Your task to perform on an android device: Open wifi settings Image 0: 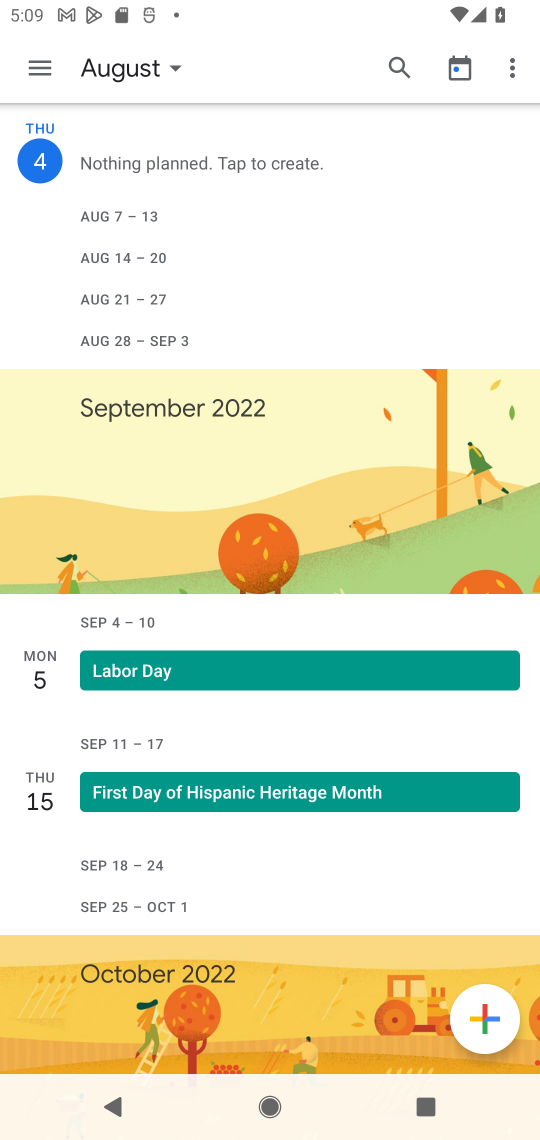
Step 0: press home button
Your task to perform on an android device: Open wifi settings Image 1: 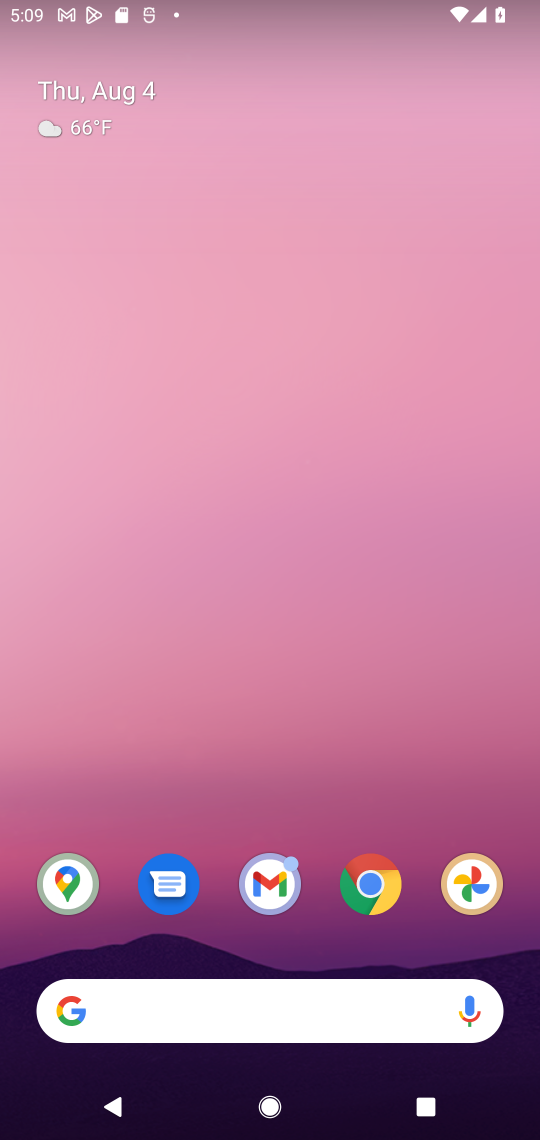
Step 1: drag from (229, 947) to (241, 212)
Your task to perform on an android device: Open wifi settings Image 2: 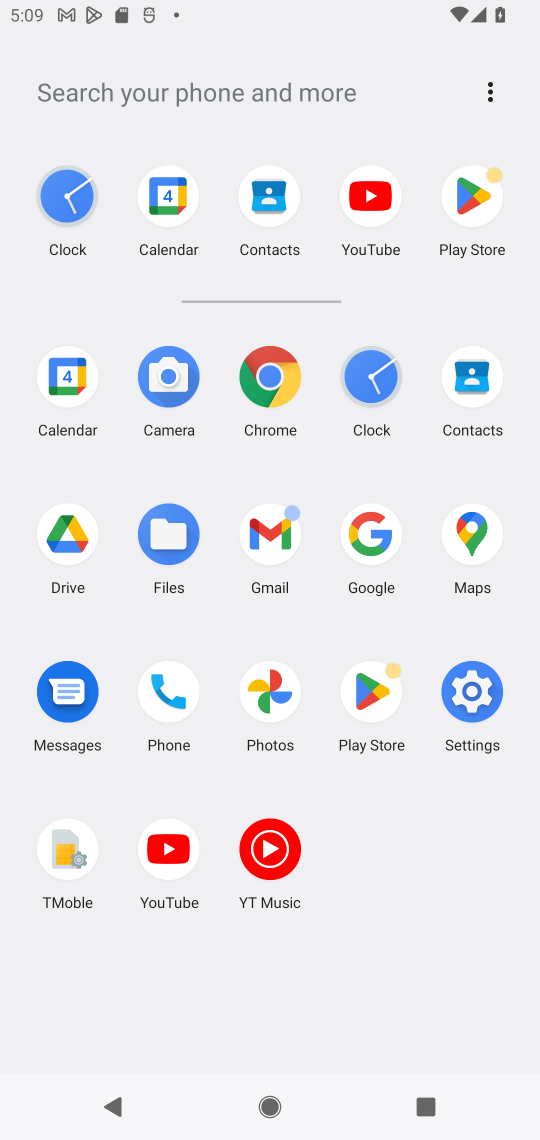
Step 2: click (470, 686)
Your task to perform on an android device: Open wifi settings Image 3: 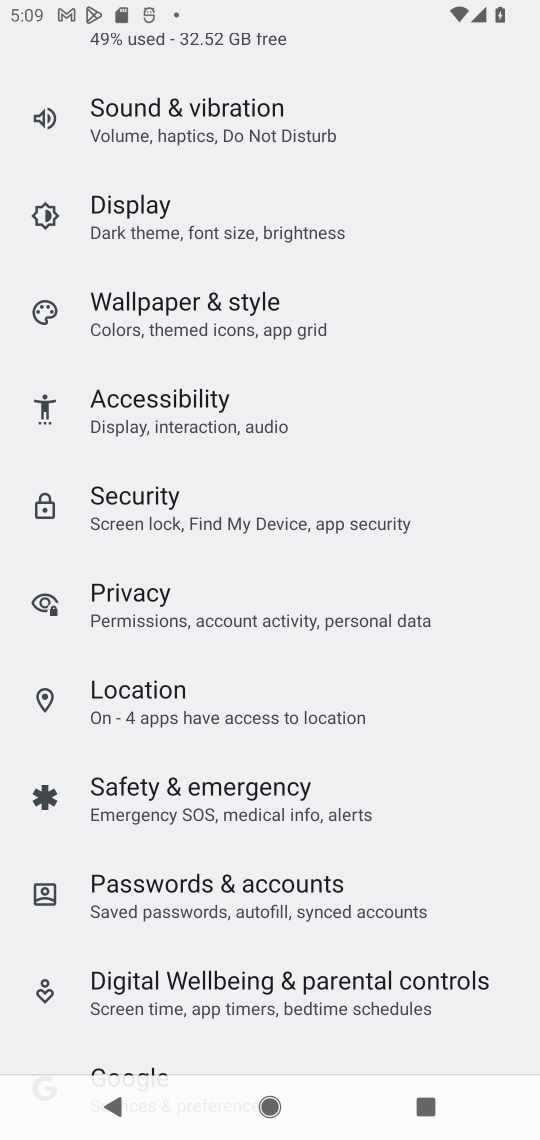
Step 3: drag from (226, 425) to (300, 1072)
Your task to perform on an android device: Open wifi settings Image 4: 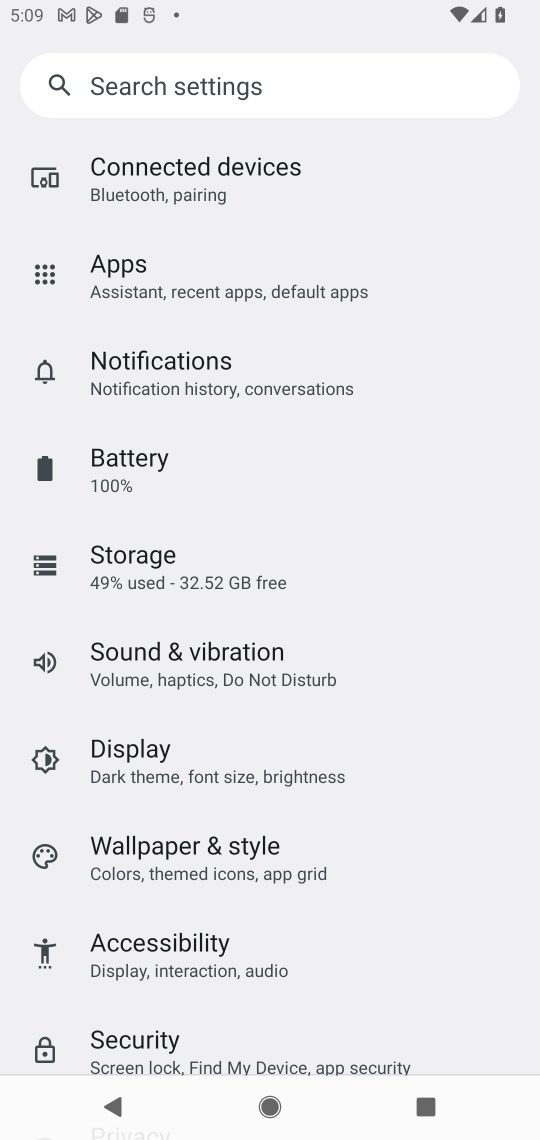
Step 4: drag from (299, 221) to (318, 714)
Your task to perform on an android device: Open wifi settings Image 5: 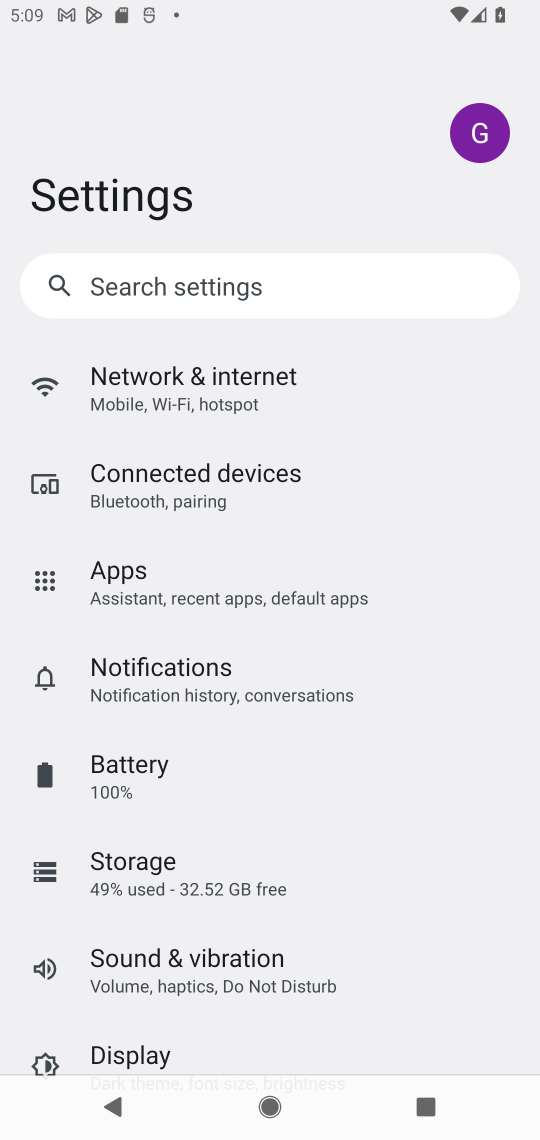
Step 5: click (350, 397)
Your task to perform on an android device: Open wifi settings Image 6: 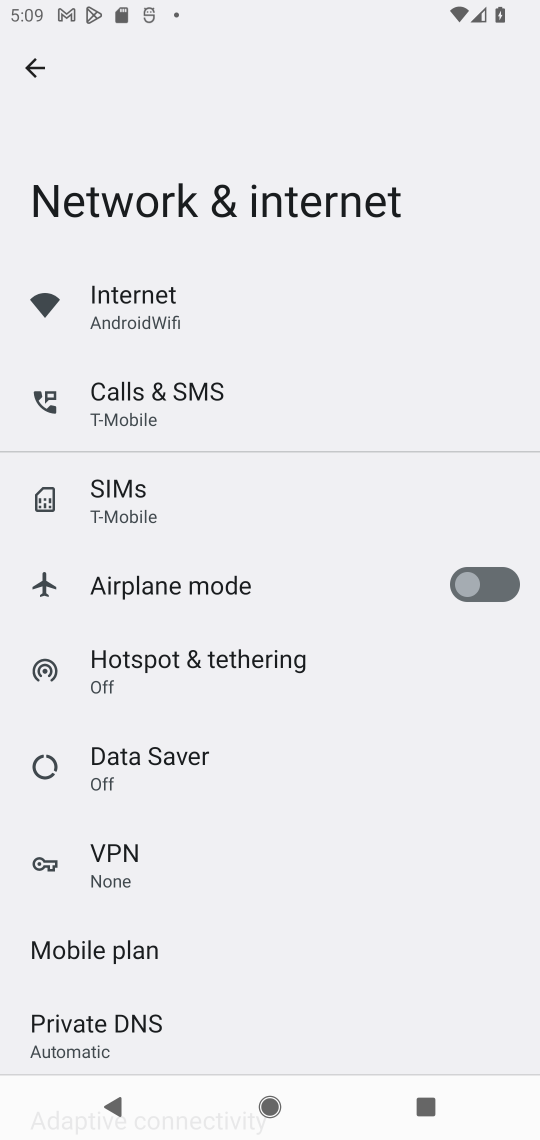
Step 6: task complete